Your task to perform on an android device: turn off notifications in google photos Image 0: 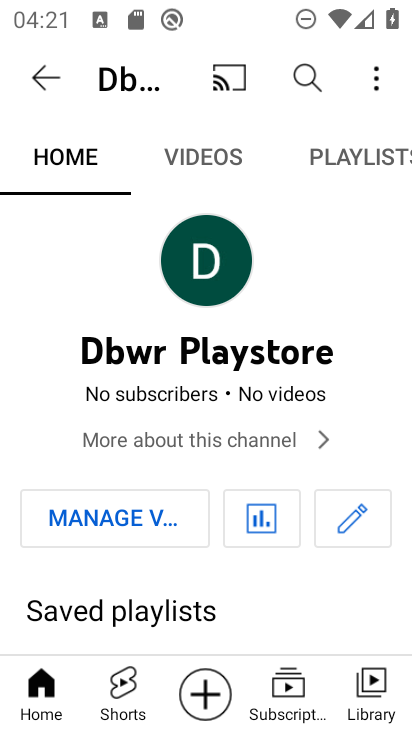
Step 0: press home button
Your task to perform on an android device: turn off notifications in google photos Image 1: 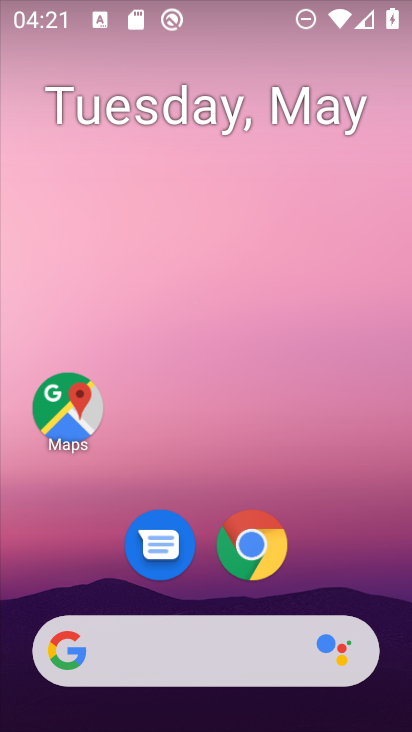
Step 1: drag from (386, 616) to (322, 54)
Your task to perform on an android device: turn off notifications in google photos Image 2: 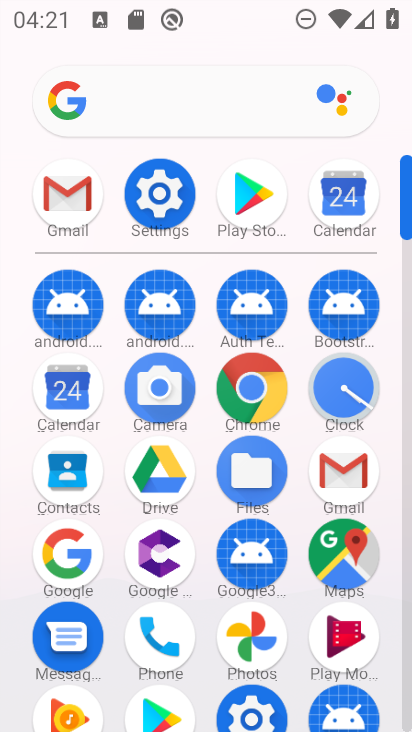
Step 2: click (407, 684)
Your task to perform on an android device: turn off notifications in google photos Image 3: 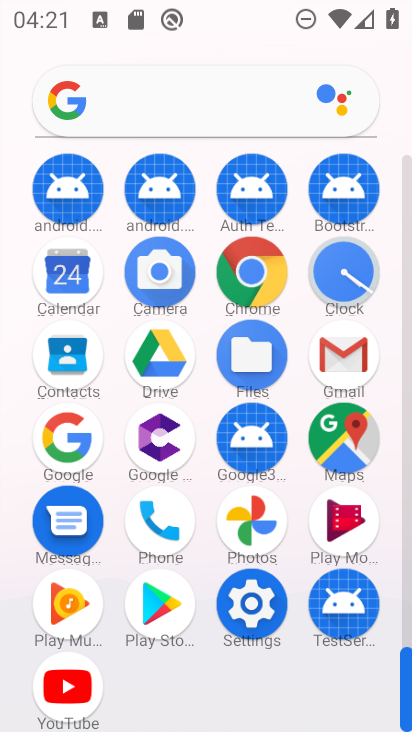
Step 3: click (250, 515)
Your task to perform on an android device: turn off notifications in google photos Image 4: 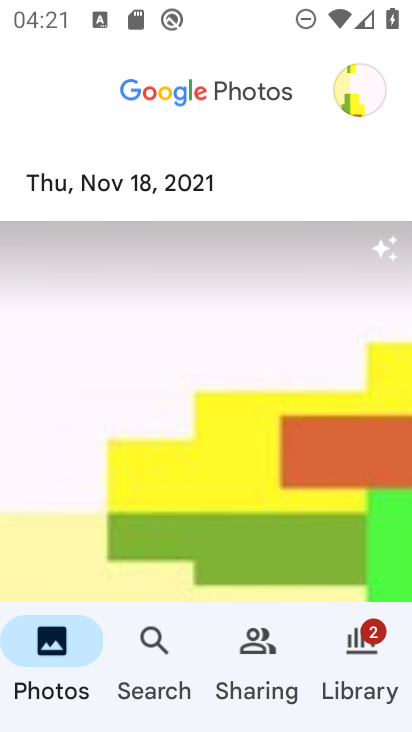
Step 4: click (359, 112)
Your task to perform on an android device: turn off notifications in google photos Image 5: 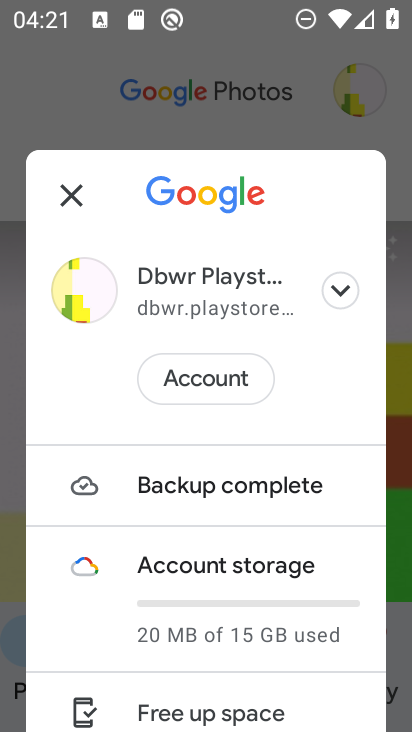
Step 5: drag from (214, 613) to (215, 181)
Your task to perform on an android device: turn off notifications in google photos Image 6: 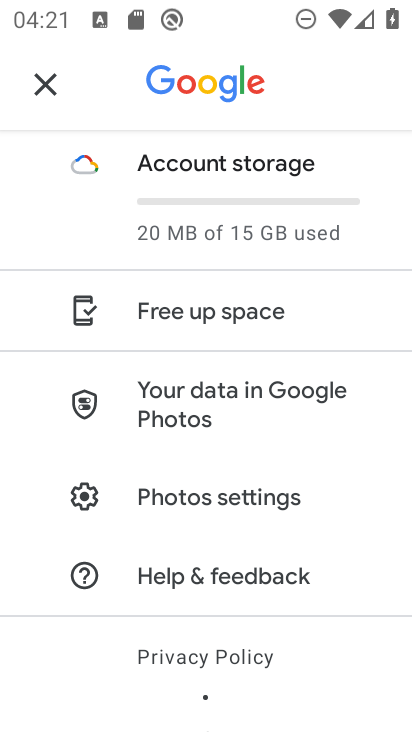
Step 6: click (167, 498)
Your task to perform on an android device: turn off notifications in google photos Image 7: 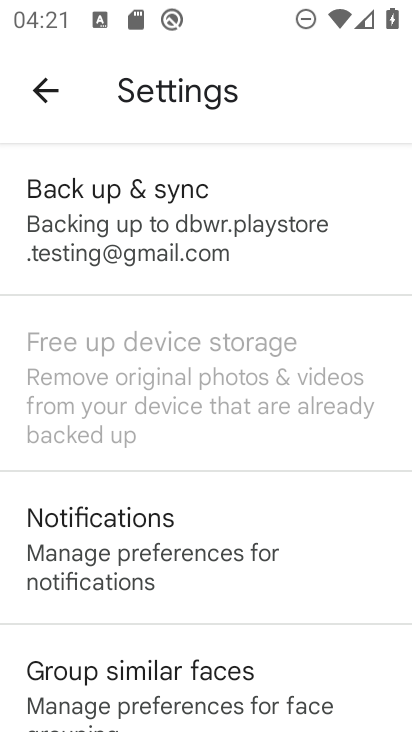
Step 7: click (125, 543)
Your task to perform on an android device: turn off notifications in google photos Image 8: 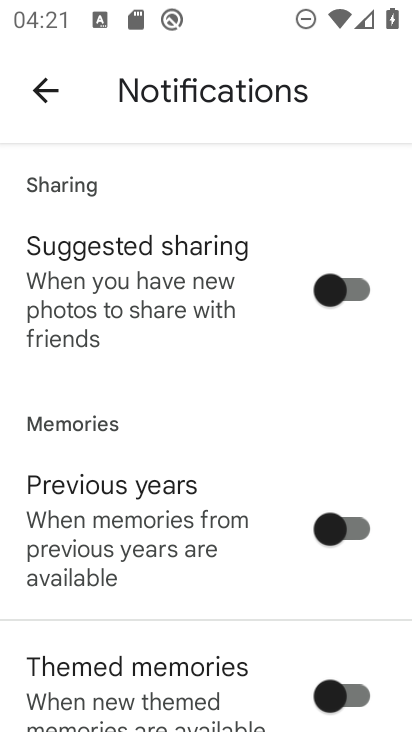
Step 8: drag from (215, 604) to (233, 156)
Your task to perform on an android device: turn off notifications in google photos Image 9: 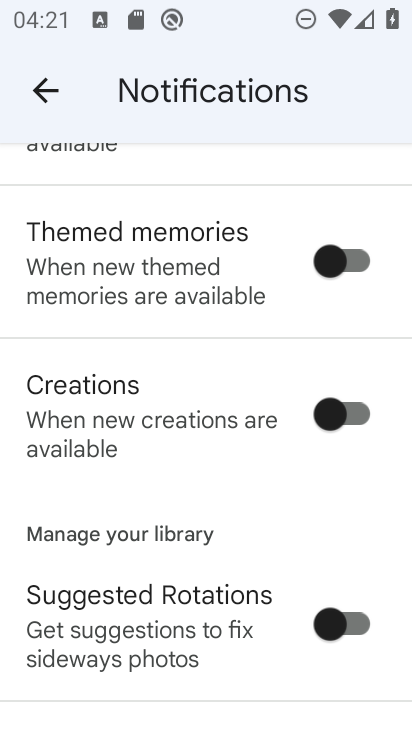
Step 9: drag from (256, 618) to (261, 185)
Your task to perform on an android device: turn off notifications in google photos Image 10: 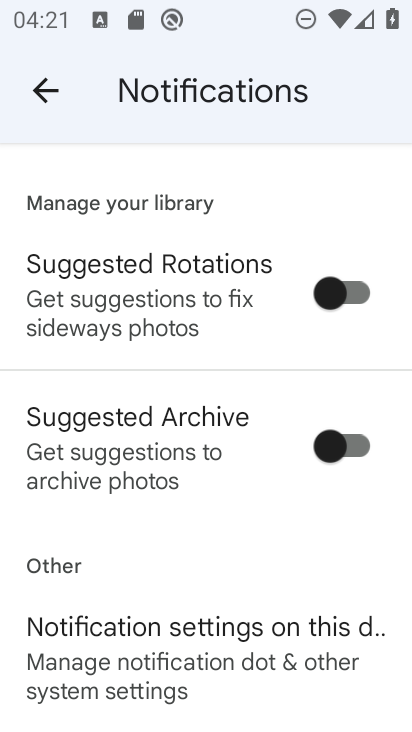
Step 10: click (118, 672)
Your task to perform on an android device: turn off notifications in google photos Image 11: 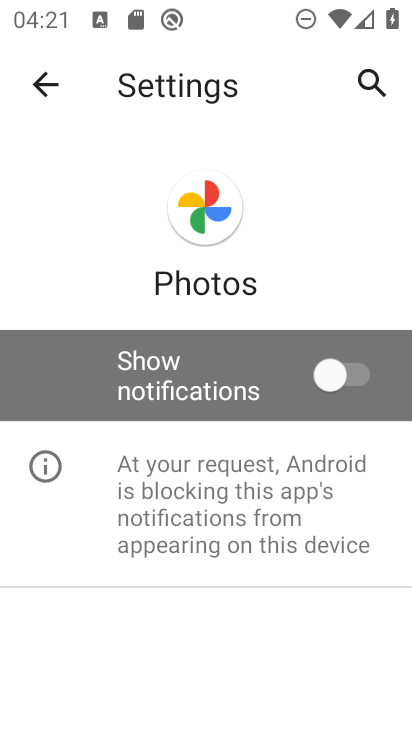
Step 11: task complete